Your task to perform on an android device: find photos in the google photos app Image 0: 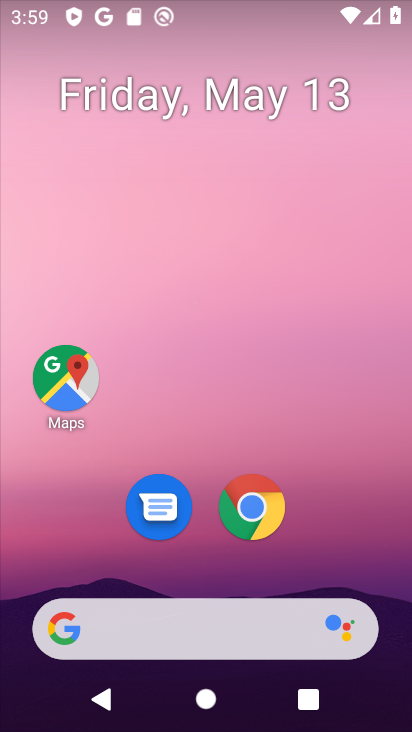
Step 0: drag from (173, 590) to (292, 249)
Your task to perform on an android device: find photos in the google photos app Image 1: 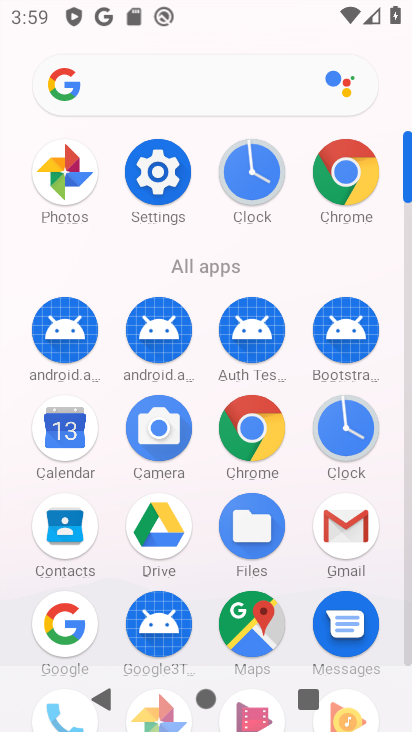
Step 1: drag from (162, 550) to (232, 404)
Your task to perform on an android device: find photos in the google photos app Image 2: 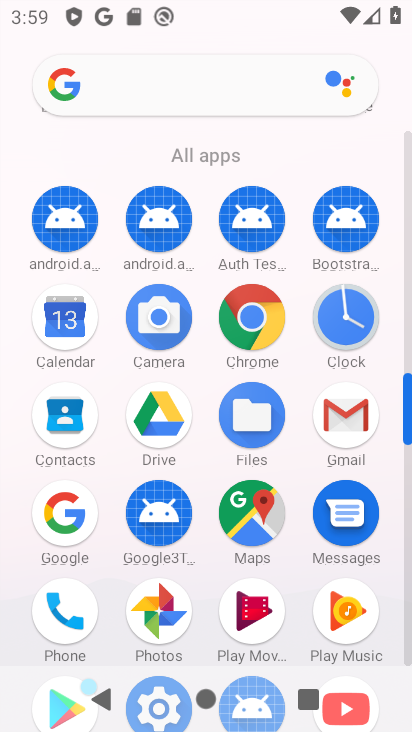
Step 2: drag from (103, 622) to (197, 464)
Your task to perform on an android device: find photos in the google photos app Image 3: 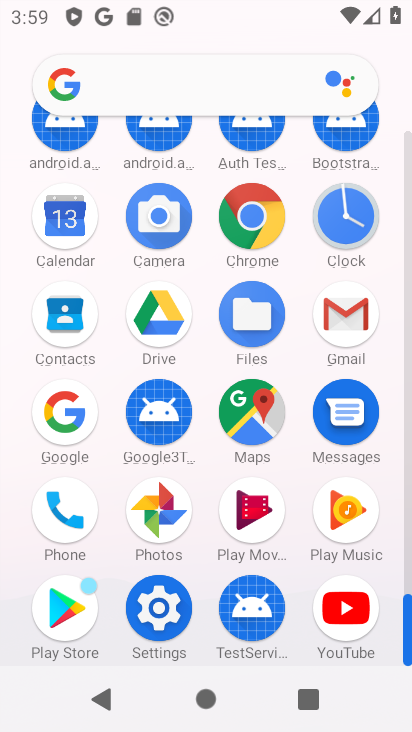
Step 3: click (158, 529)
Your task to perform on an android device: find photos in the google photos app Image 4: 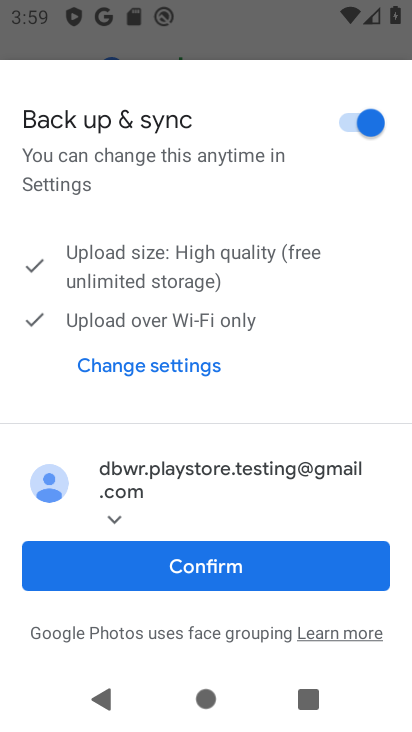
Step 4: click (262, 574)
Your task to perform on an android device: find photos in the google photos app Image 5: 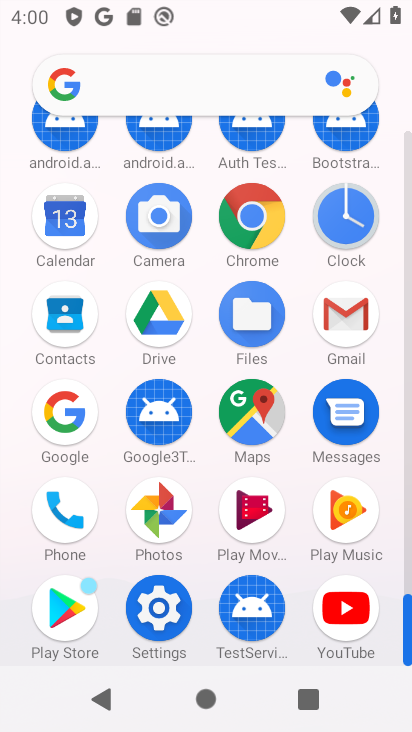
Step 5: click (137, 524)
Your task to perform on an android device: find photos in the google photos app Image 6: 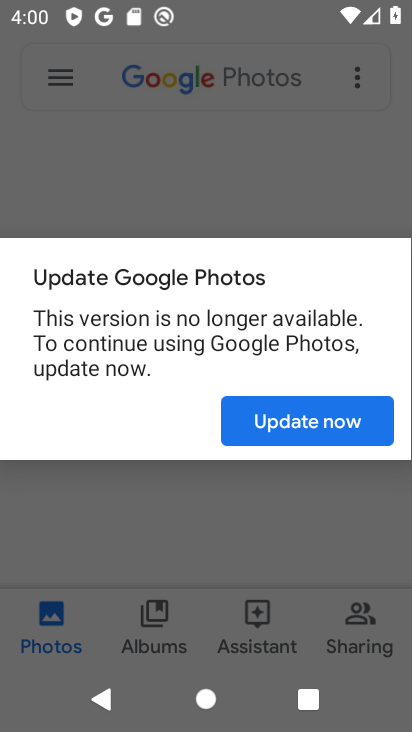
Step 6: click (298, 441)
Your task to perform on an android device: find photos in the google photos app Image 7: 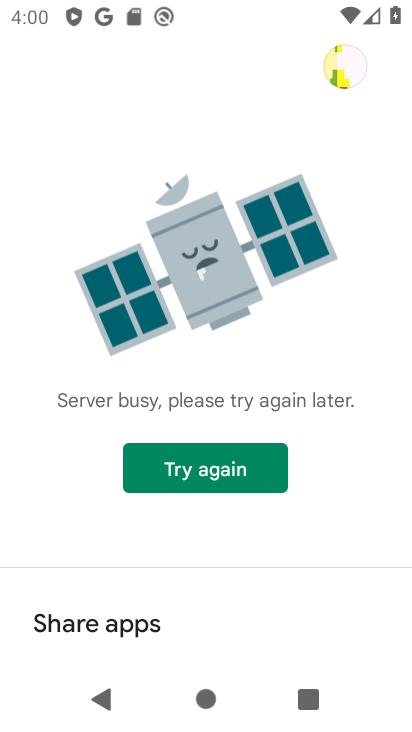
Step 7: click (268, 475)
Your task to perform on an android device: find photos in the google photos app Image 8: 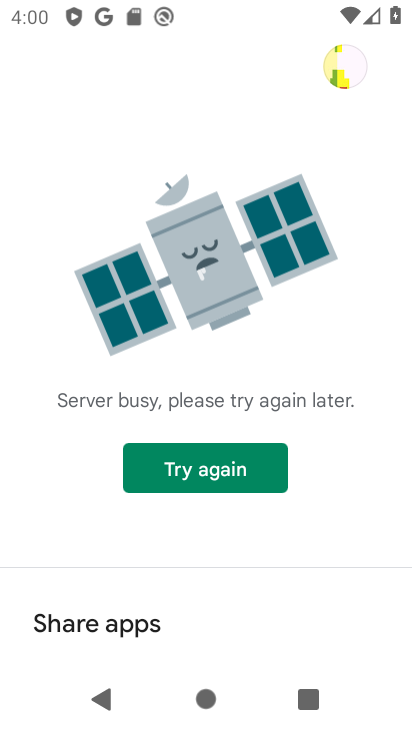
Step 8: click (267, 476)
Your task to perform on an android device: find photos in the google photos app Image 9: 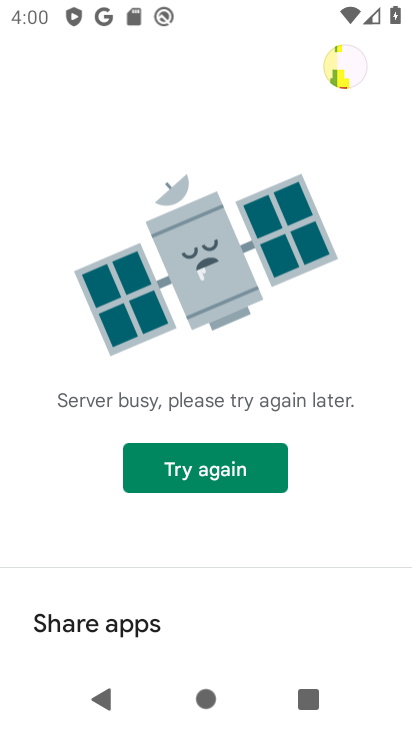
Step 9: task complete